Your task to perform on an android device: Open Chrome and go to the settings page Image 0: 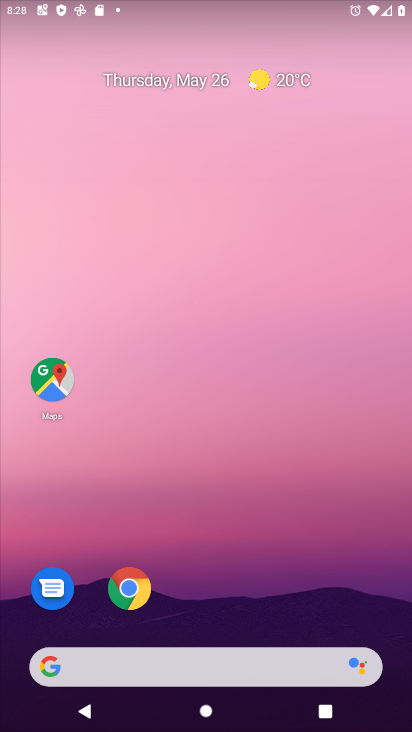
Step 0: drag from (338, 475) to (268, 2)
Your task to perform on an android device: Open Chrome and go to the settings page Image 1: 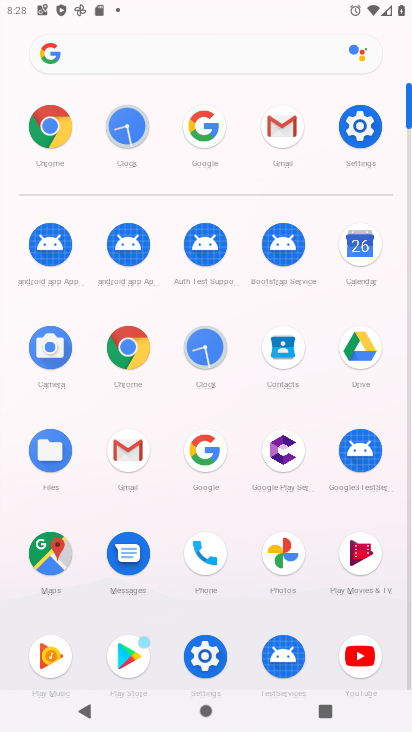
Step 1: click (35, 120)
Your task to perform on an android device: Open Chrome and go to the settings page Image 2: 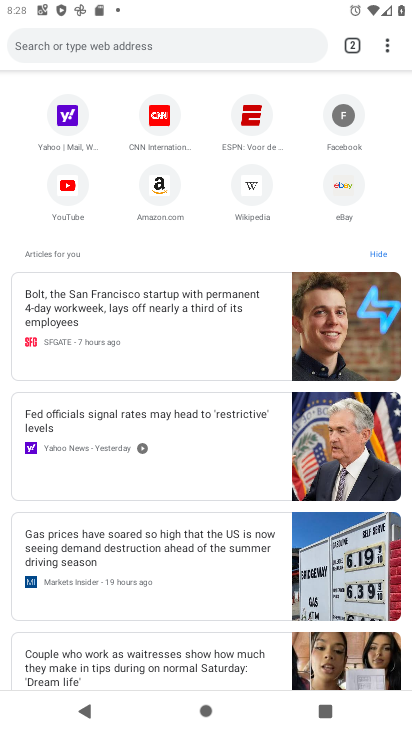
Step 2: click (388, 50)
Your task to perform on an android device: Open Chrome and go to the settings page Image 3: 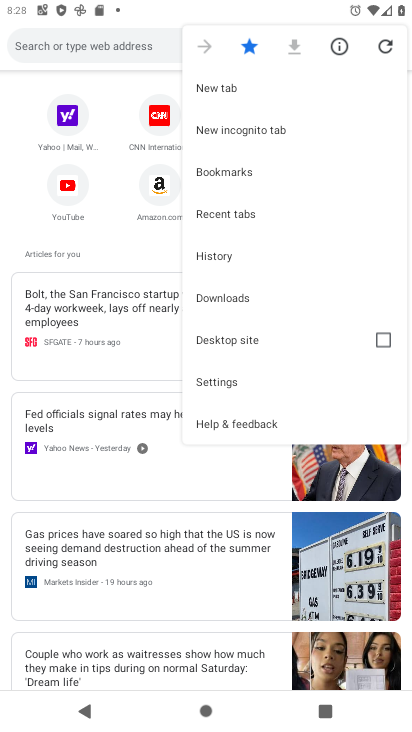
Step 3: click (237, 392)
Your task to perform on an android device: Open Chrome and go to the settings page Image 4: 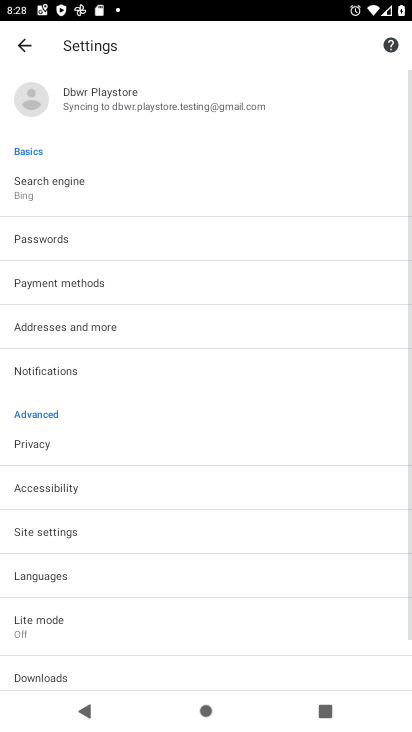
Step 4: task complete